Your task to perform on an android device: Go to ESPN.com Image 0: 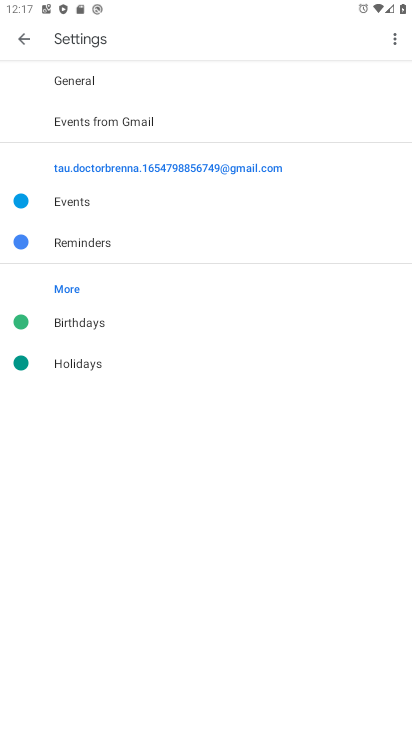
Step 0: press home button
Your task to perform on an android device: Go to ESPN.com Image 1: 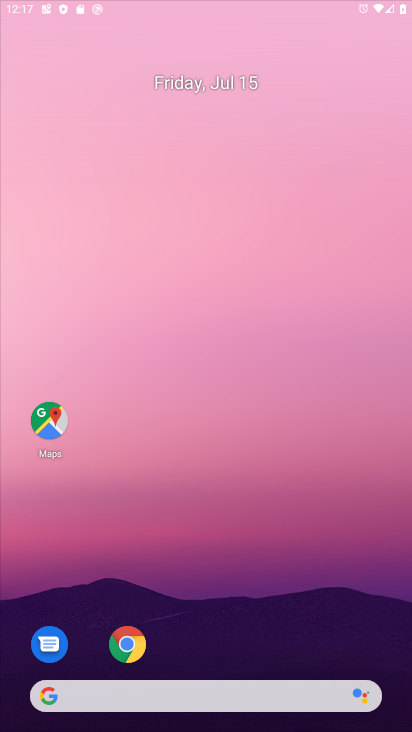
Step 1: drag from (388, 674) to (195, 35)
Your task to perform on an android device: Go to ESPN.com Image 2: 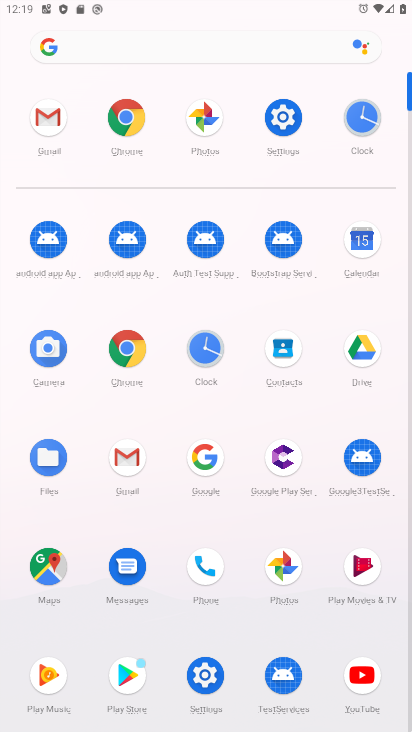
Step 2: click (199, 471)
Your task to perform on an android device: Go to ESPN.com Image 3: 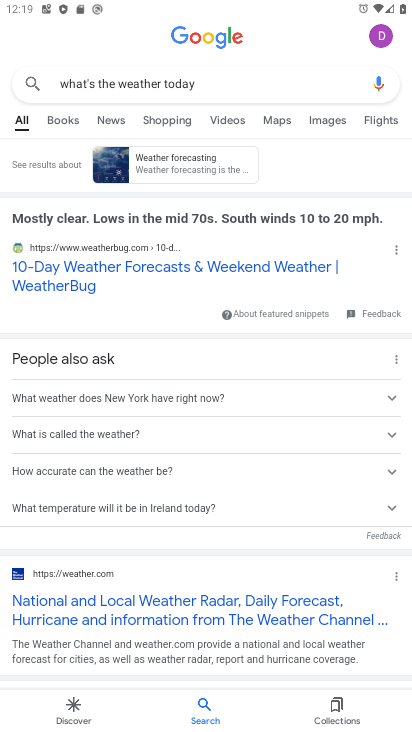
Step 3: press back button
Your task to perform on an android device: Go to ESPN.com Image 4: 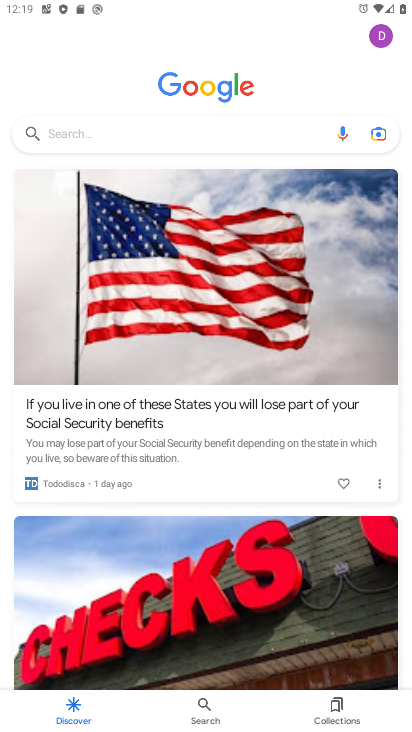
Step 4: click (147, 122)
Your task to perform on an android device: Go to ESPN.com Image 5: 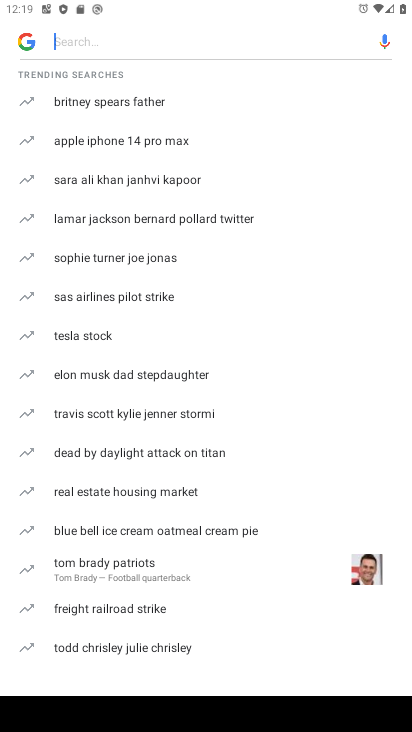
Step 5: type "espn"
Your task to perform on an android device: Go to ESPN.com Image 6: 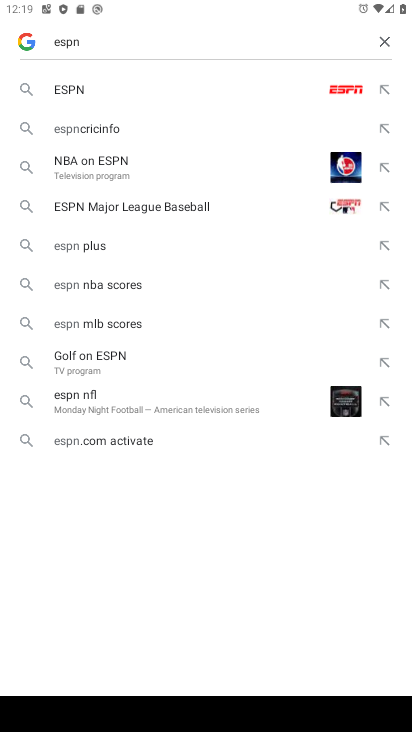
Step 6: click (107, 92)
Your task to perform on an android device: Go to ESPN.com Image 7: 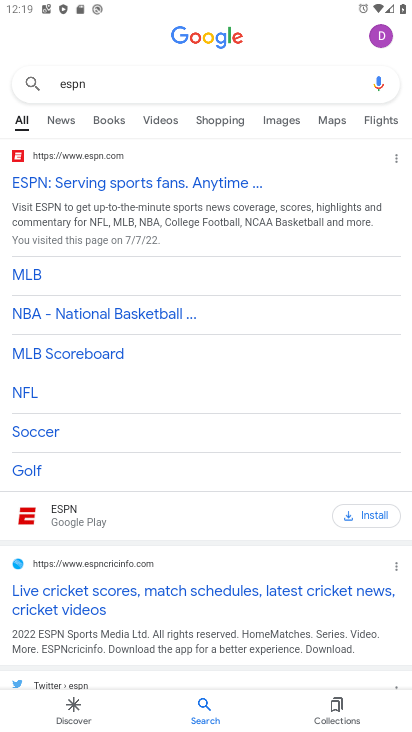
Step 7: task complete